Your task to perform on an android device: Go to calendar. Show me events next week Image 0: 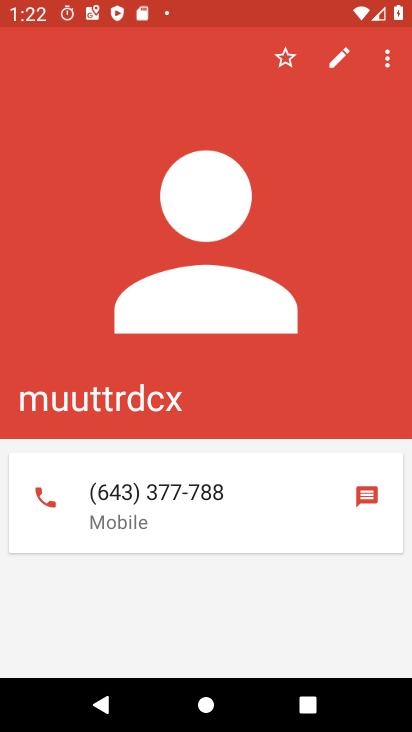
Step 0: press home button
Your task to perform on an android device: Go to calendar. Show me events next week Image 1: 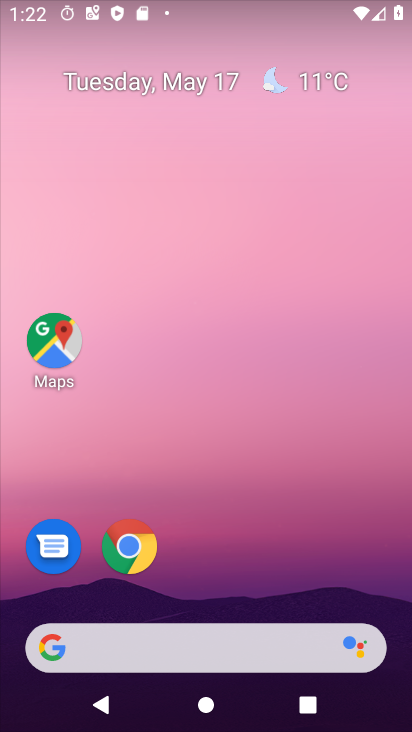
Step 1: drag from (181, 655) to (336, 96)
Your task to perform on an android device: Go to calendar. Show me events next week Image 2: 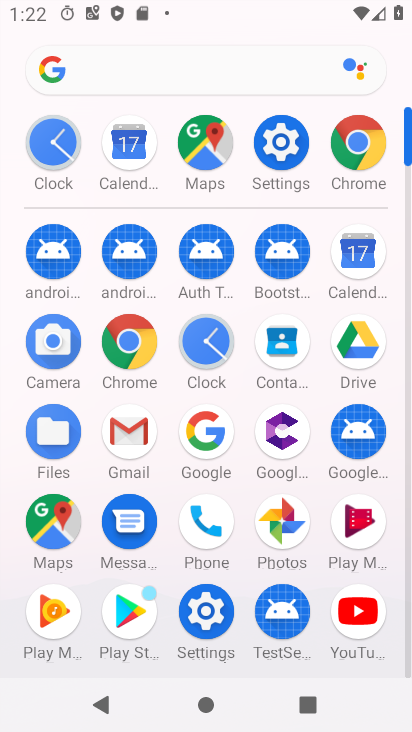
Step 2: click (345, 256)
Your task to perform on an android device: Go to calendar. Show me events next week Image 3: 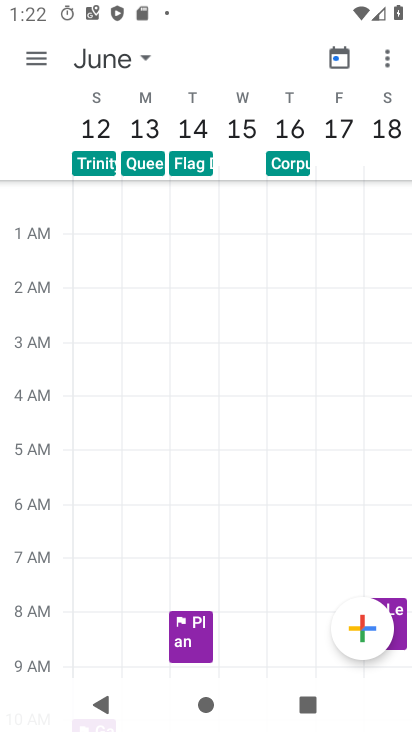
Step 3: click (99, 64)
Your task to perform on an android device: Go to calendar. Show me events next week Image 4: 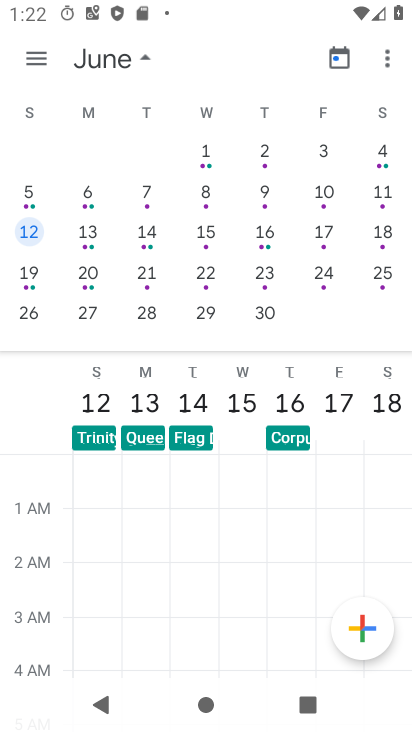
Step 4: drag from (103, 238) to (374, 238)
Your task to perform on an android device: Go to calendar. Show me events next week Image 5: 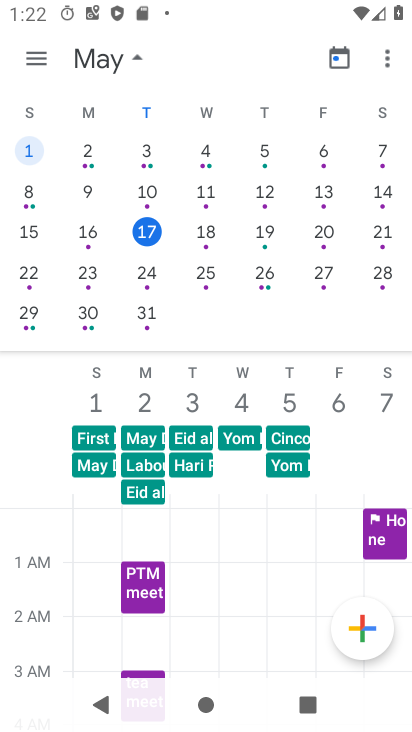
Step 5: click (20, 279)
Your task to perform on an android device: Go to calendar. Show me events next week Image 6: 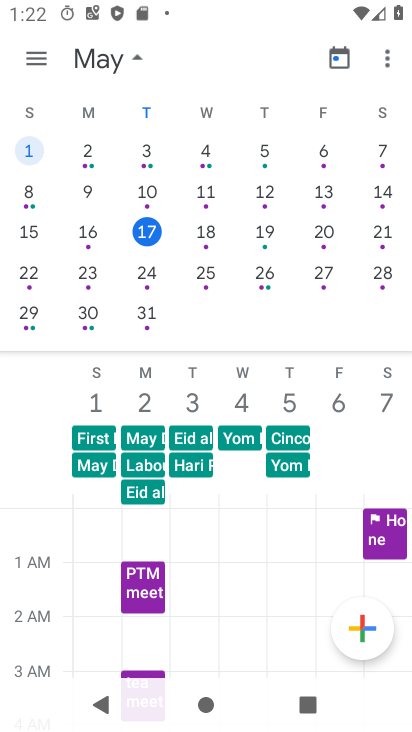
Step 6: click (35, 270)
Your task to perform on an android device: Go to calendar. Show me events next week Image 7: 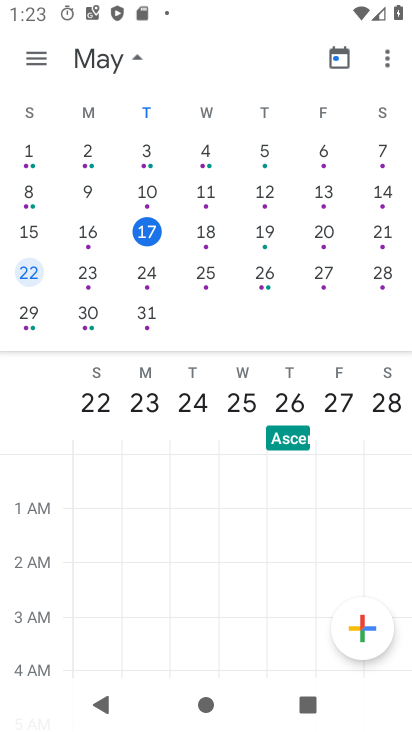
Step 7: click (35, 67)
Your task to perform on an android device: Go to calendar. Show me events next week Image 8: 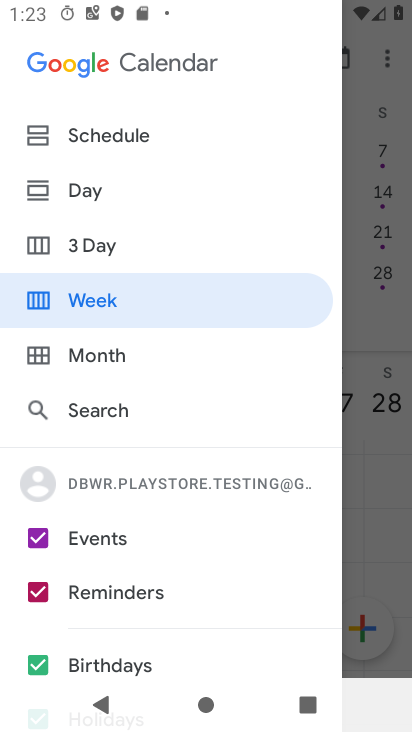
Step 8: click (87, 307)
Your task to perform on an android device: Go to calendar. Show me events next week Image 9: 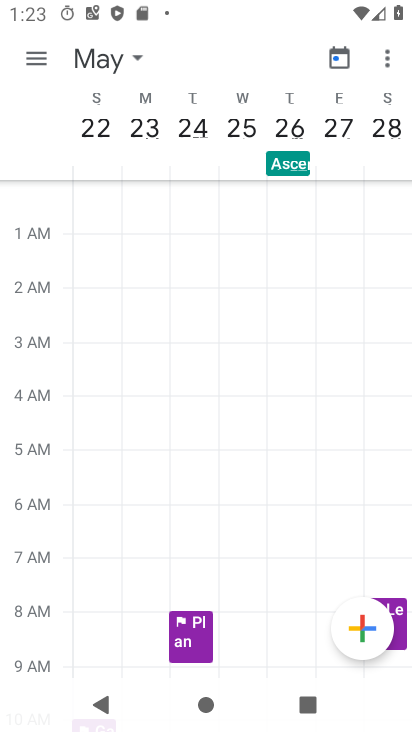
Step 9: click (41, 65)
Your task to perform on an android device: Go to calendar. Show me events next week Image 10: 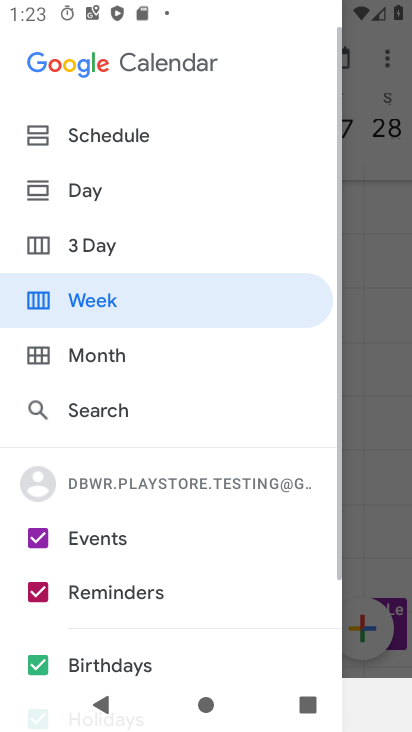
Step 10: click (83, 133)
Your task to perform on an android device: Go to calendar. Show me events next week Image 11: 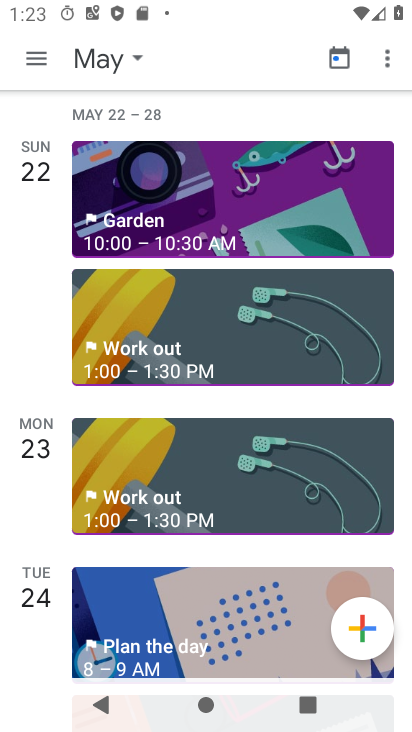
Step 11: click (214, 210)
Your task to perform on an android device: Go to calendar. Show me events next week Image 12: 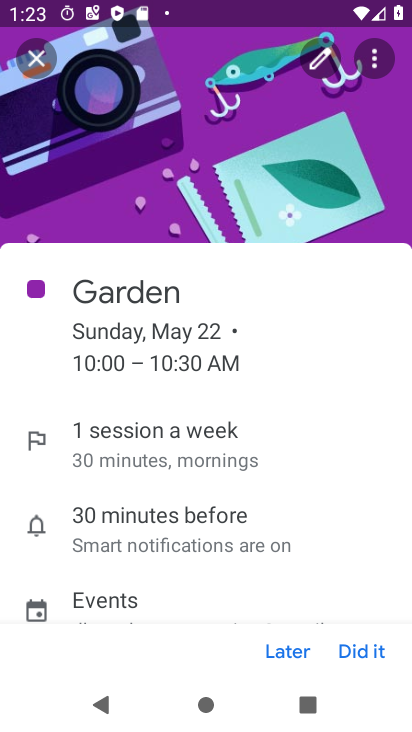
Step 12: task complete